Your task to perform on an android device: add a contact in the contacts app Image 0: 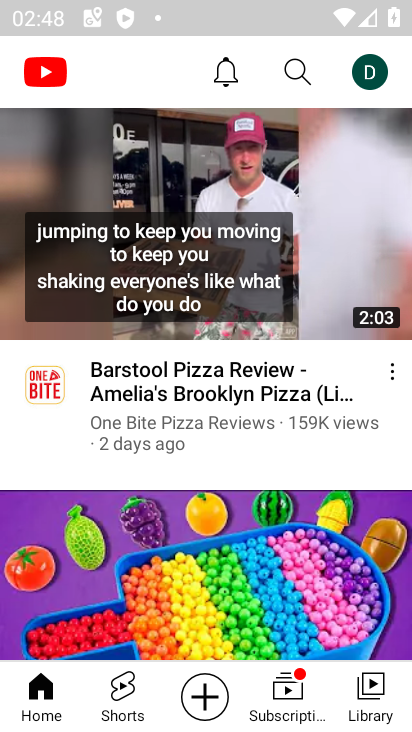
Step 0: press back button
Your task to perform on an android device: add a contact in the contacts app Image 1: 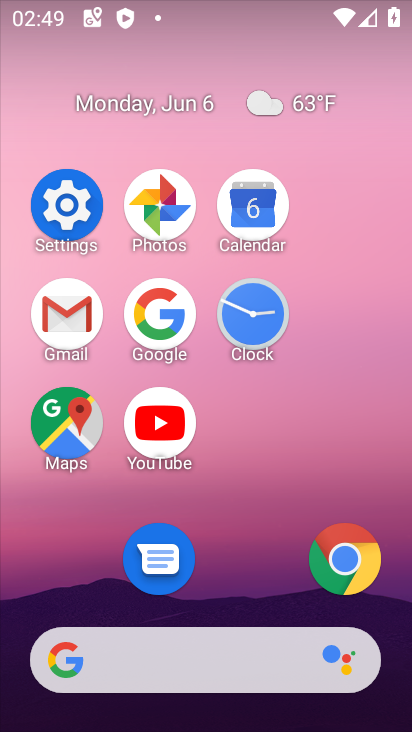
Step 1: drag from (236, 573) to (243, 114)
Your task to perform on an android device: add a contact in the contacts app Image 2: 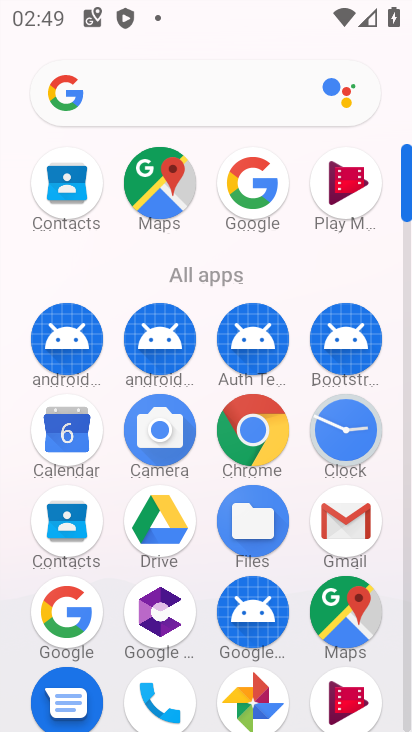
Step 2: click (62, 183)
Your task to perform on an android device: add a contact in the contacts app Image 3: 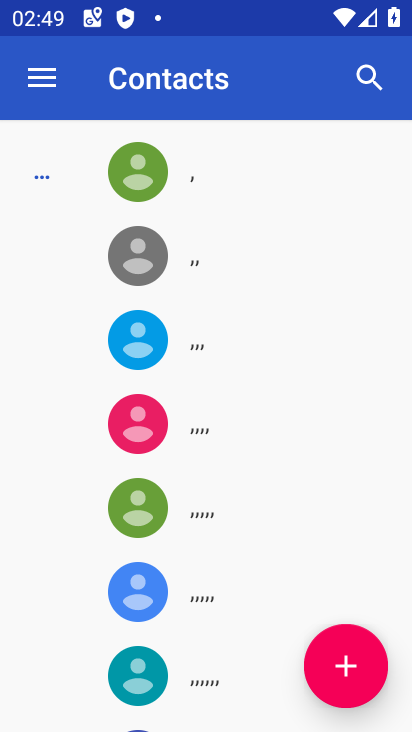
Step 3: click (318, 686)
Your task to perform on an android device: add a contact in the contacts app Image 4: 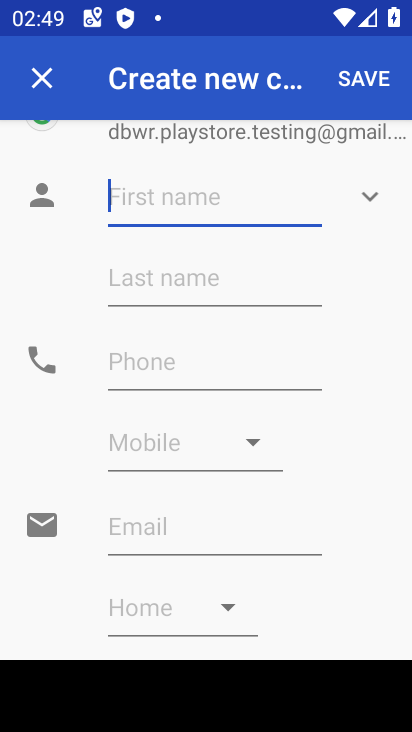
Step 4: type "yyuuoi"
Your task to perform on an android device: add a contact in the contacts app Image 5: 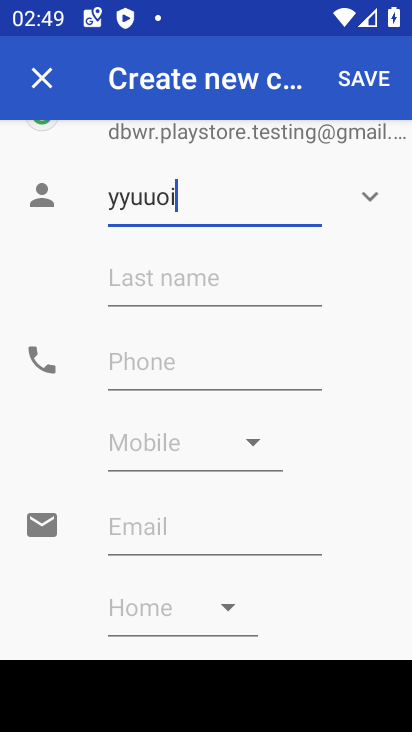
Step 5: click (168, 360)
Your task to perform on an android device: add a contact in the contacts app Image 6: 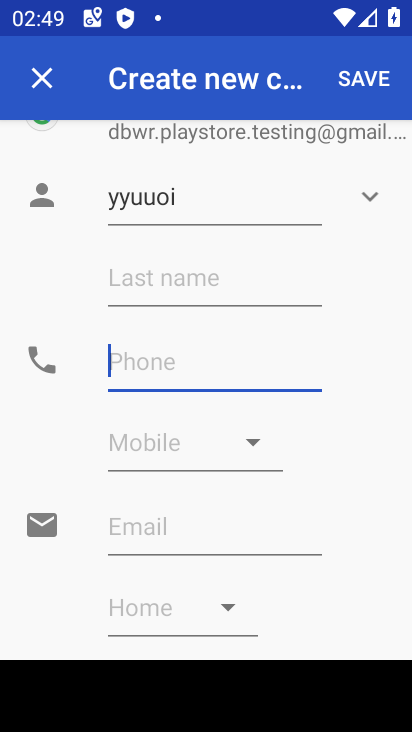
Step 6: type "7766554434"
Your task to perform on an android device: add a contact in the contacts app Image 7: 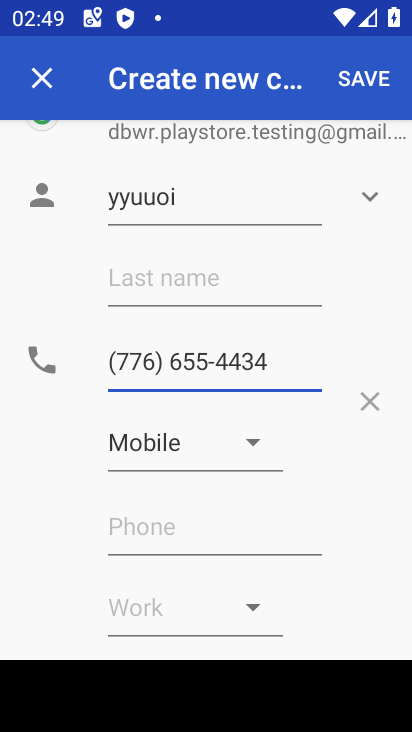
Step 7: click (368, 85)
Your task to perform on an android device: add a contact in the contacts app Image 8: 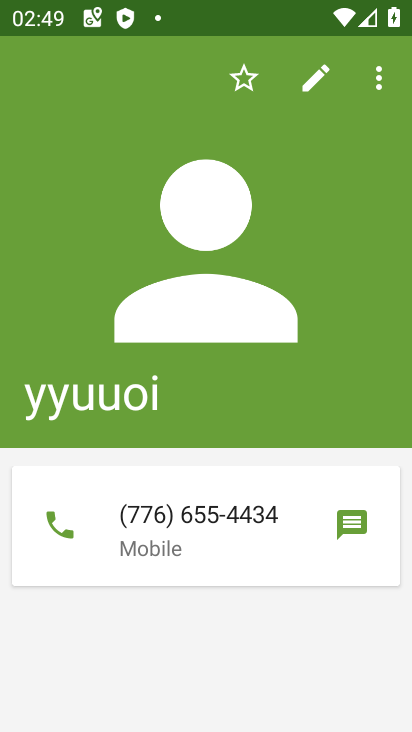
Step 8: task complete